Your task to perform on an android device: Open the stopwatch Image 0: 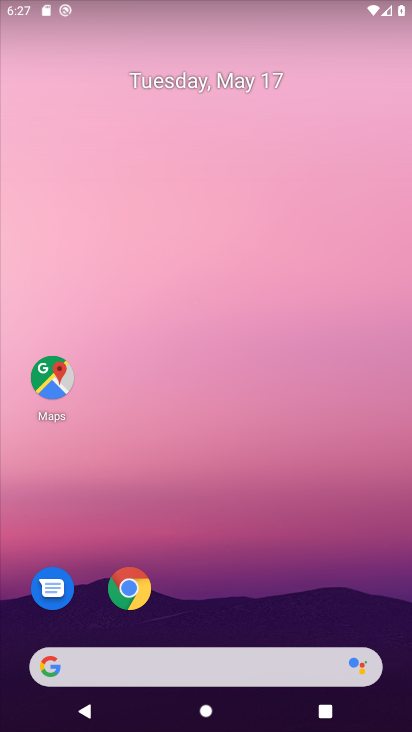
Step 0: drag from (400, 679) to (255, 96)
Your task to perform on an android device: Open the stopwatch Image 1: 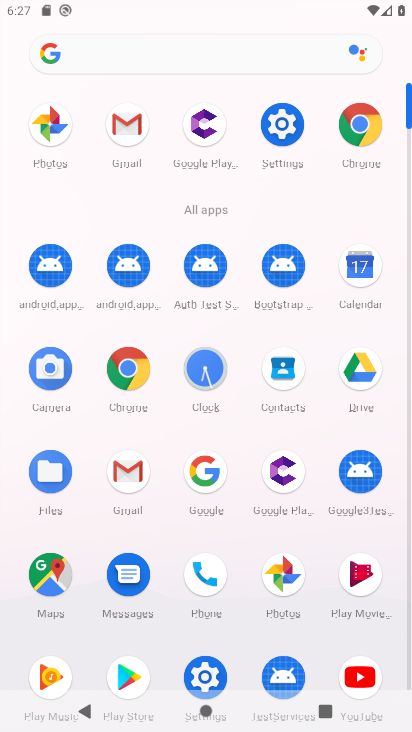
Step 1: click (207, 373)
Your task to perform on an android device: Open the stopwatch Image 2: 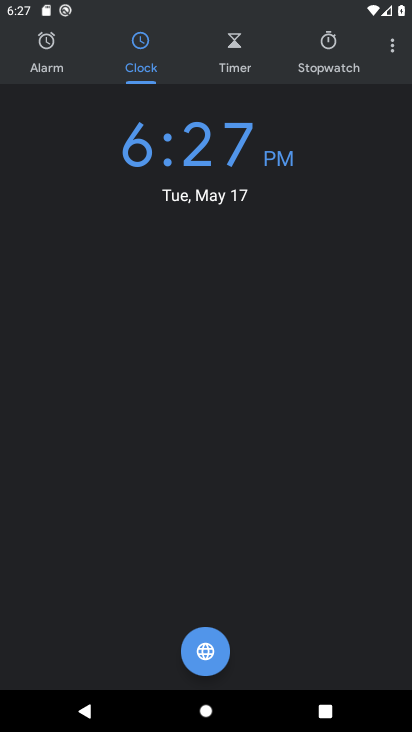
Step 2: click (326, 43)
Your task to perform on an android device: Open the stopwatch Image 3: 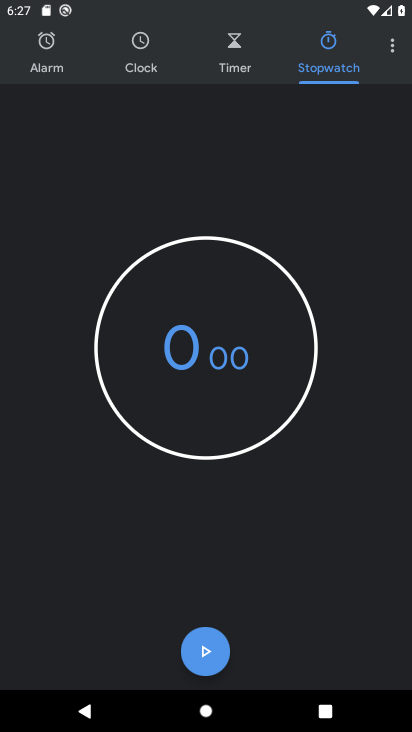
Step 3: task complete